Your task to perform on an android device: Open Youtube and go to "Your channel" Image 0: 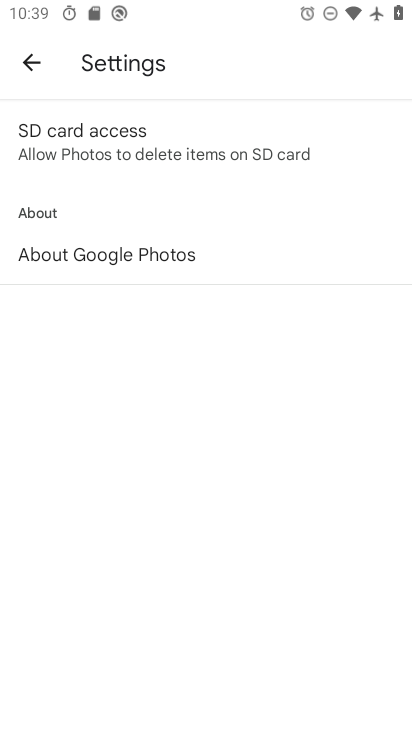
Step 0: press home button
Your task to perform on an android device: Open Youtube and go to "Your channel" Image 1: 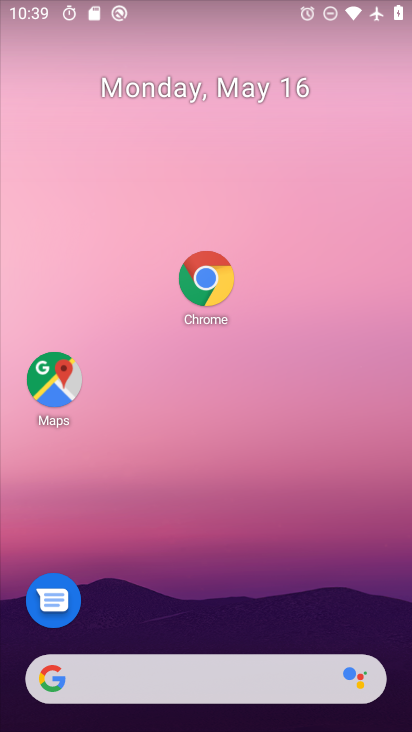
Step 1: drag from (217, 669) to (341, 76)
Your task to perform on an android device: Open Youtube and go to "Your channel" Image 2: 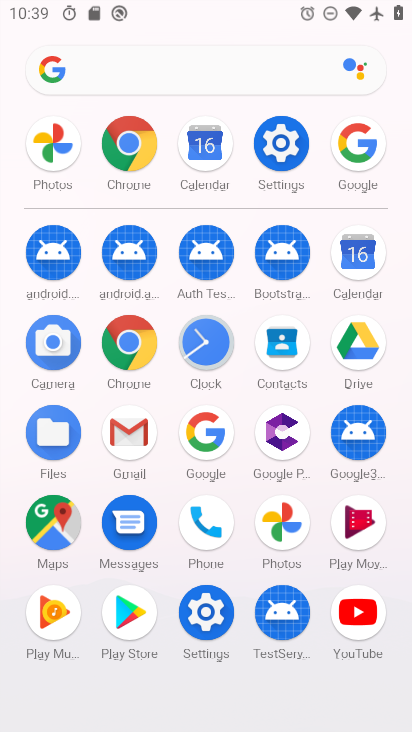
Step 2: click (358, 611)
Your task to perform on an android device: Open Youtube and go to "Your channel" Image 3: 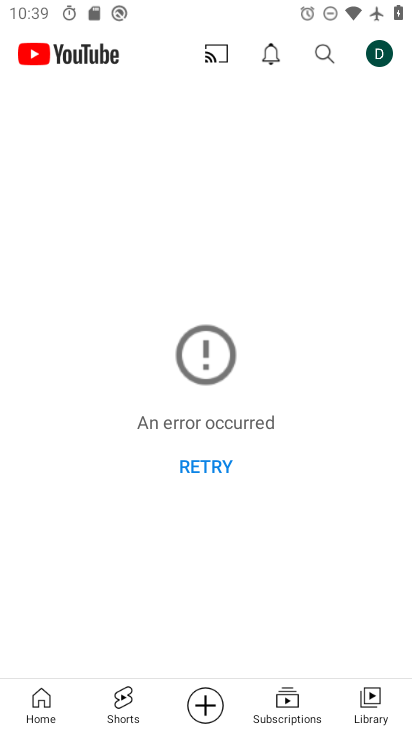
Step 3: click (212, 463)
Your task to perform on an android device: Open Youtube and go to "Your channel" Image 4: 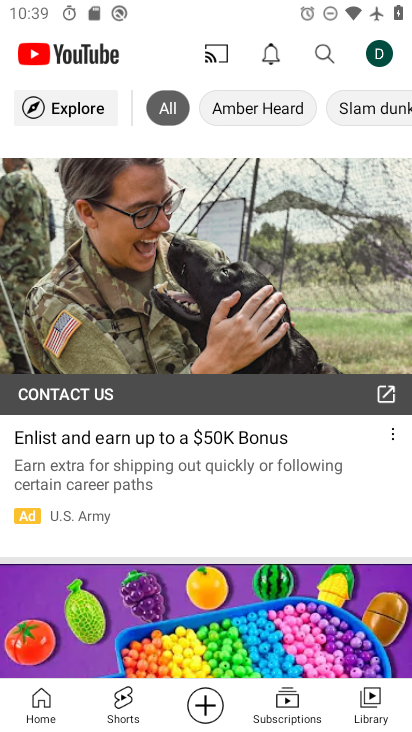
Step 4: click (385, 49)
Your task to perform on an android device: Open Youtube and go to "Your channel" Image 5: 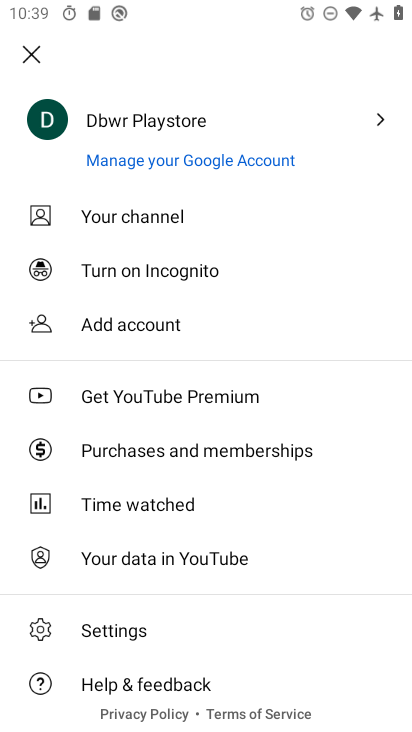
Step 5: click (168, 215)
Your task to perform on an android device: Open Youtube and go to "Your channel" Image 6: 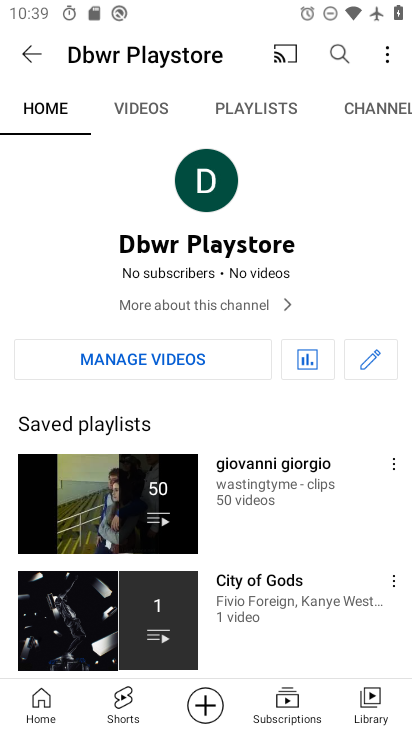
Step 6: task complete